Your task to perform on an android device: turn on priority inbox in the gmail app Image 0: 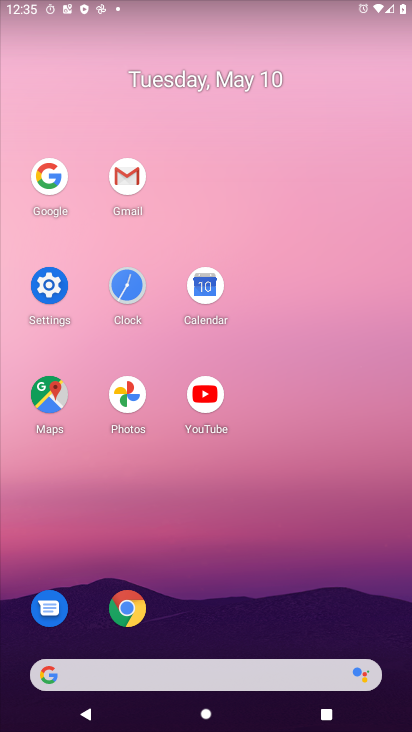
Step 0: click (134, 172)
Your task to perform on an android device: turn on priority inbox in the gmail app Image 1: 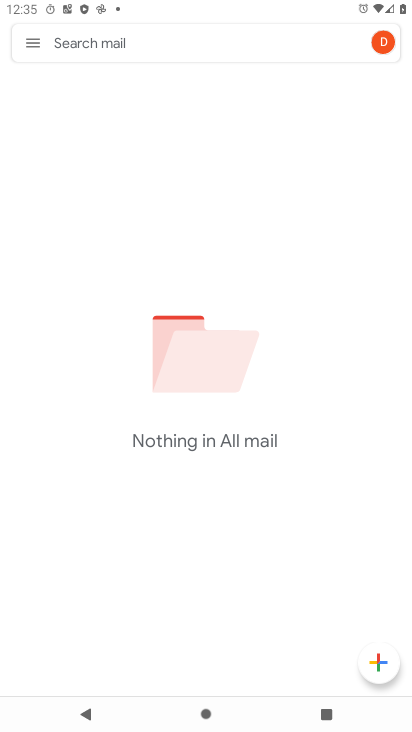
Step 1: click (30, 38)
Your task to perform on an android device: turn on priority inbox in the gmail app Image 2: 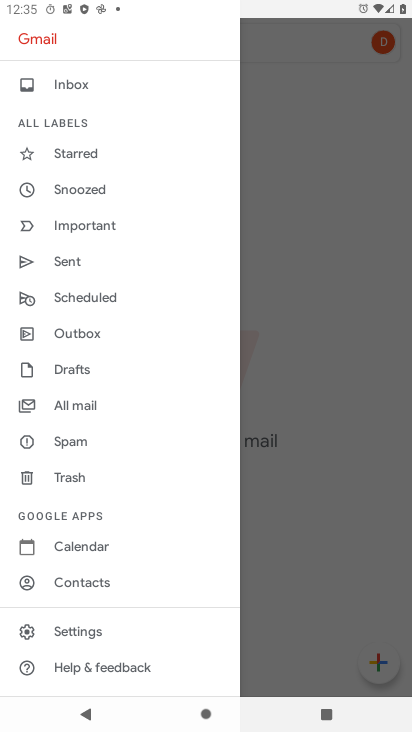
Step 2: drag from (133, 588) to (177, 267)
Your task to perform on an android device: turn on priority inbox in the gmail app Image 3: 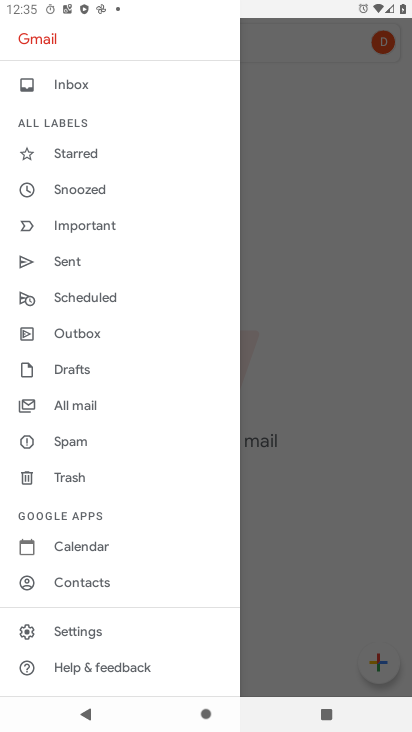
Step 3: click (74, 631)
Your task to perform on an android device: turn on priority inbox in the gmail app Image 4: 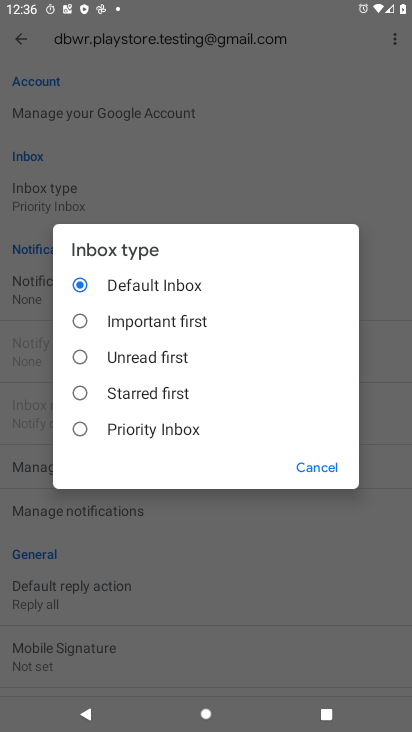
Step 4: click (133, 434)
Your task to perform on an android device: turn on priority inbox in the gmail app Image 5: 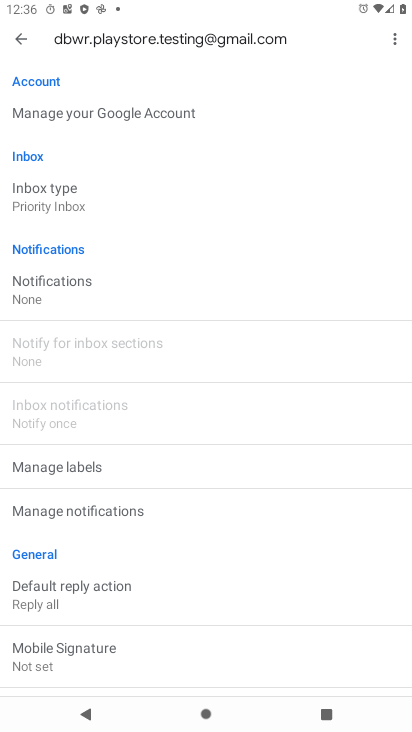
Step 5: task complete